Your task to perform on an android device: Check the weather Image 0: 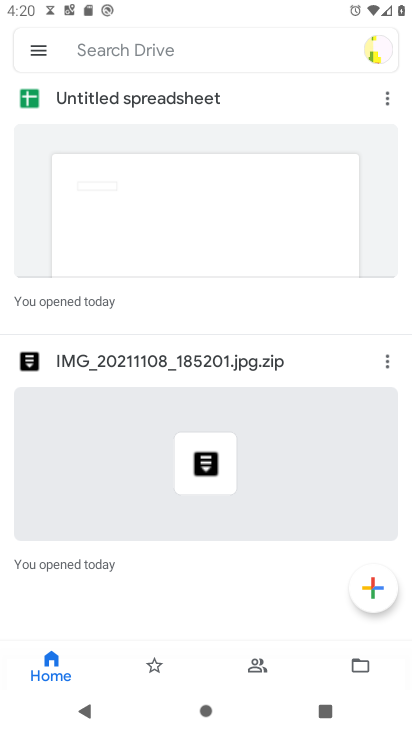
Step 0: press home button
Your task to perform on an android device: Check the weather Image 1: 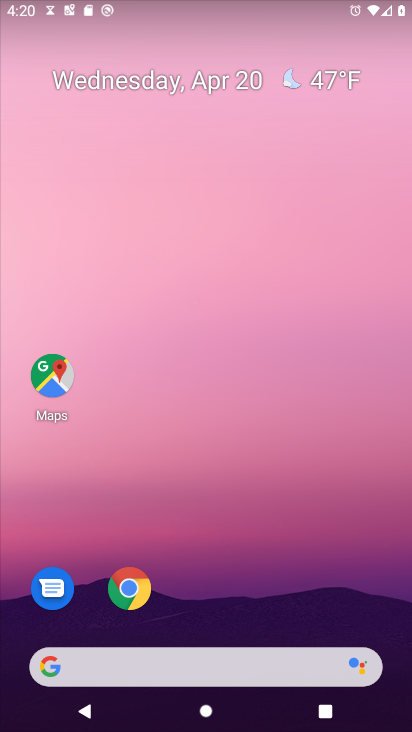
Step 1: drag from (222, 466) to (268, 119)
Your task to perform on an android device: Check the weather Image 2: 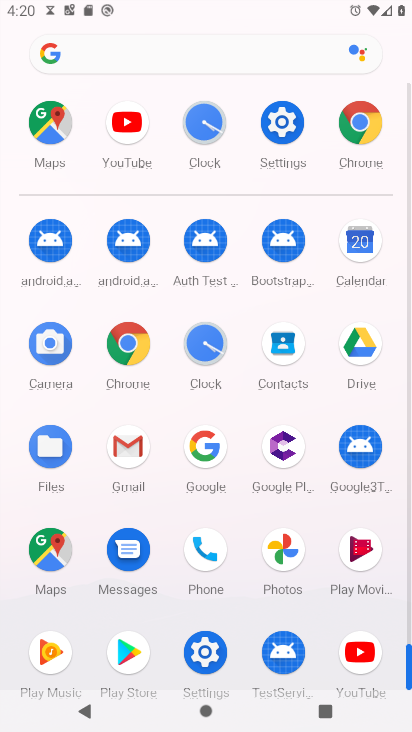
Step 2: click (106, 60)
Your task to perform on an android device: Check the weather Image 3: 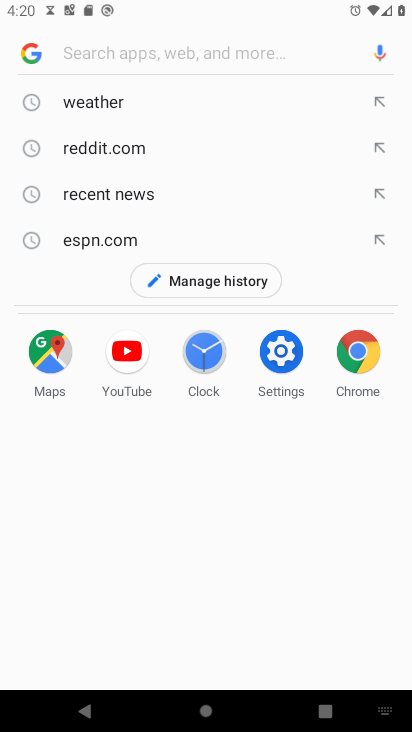
Step 3: type "weather"
Your task to perform on an android device: Check the weather Image 4: 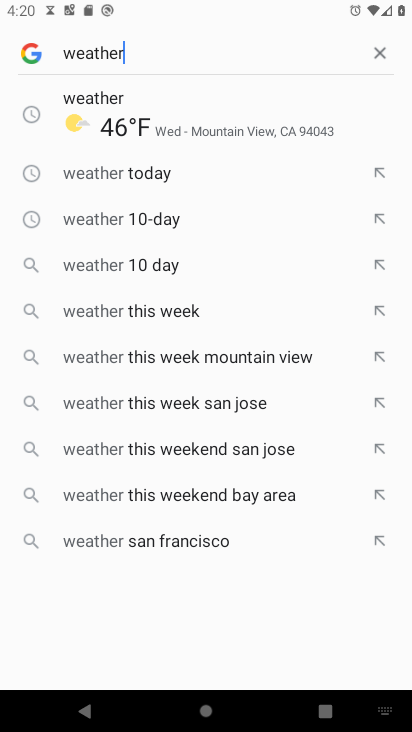
Step 4: click (221, 114)
Your task to perform on an android device: Check the weather Image 5: 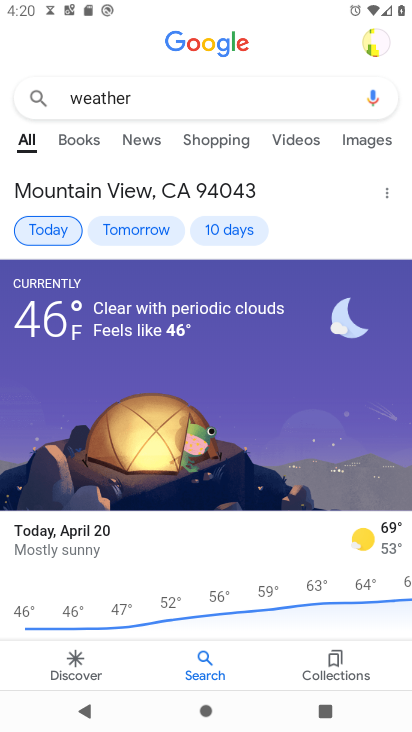
Step 5: task complete